Your task to perform on an android device: delete location history Image 0: 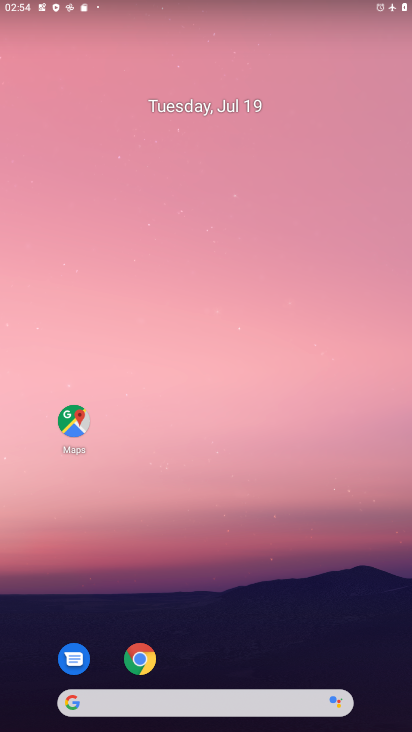
Step 0: press home button
Your task to perform on an android device: delete location history Image 1: 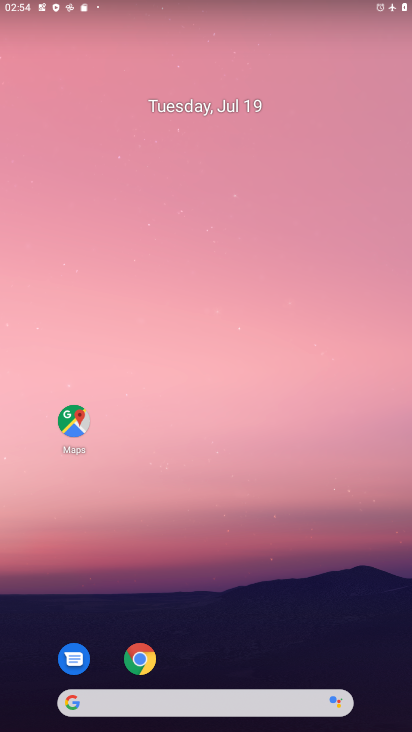
Step 1: drag from (223, 690) to (247, 282)
Your task to perform on an android device: delete location history Image 2: 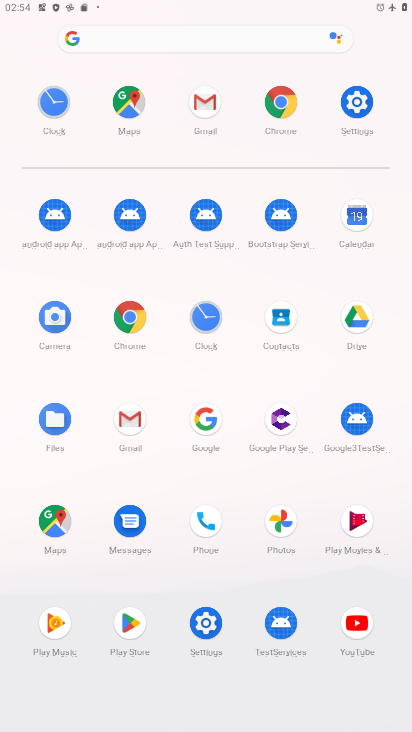
Step 2: click (146, 115)
Your task to perform on an android device: delete location history Image 3: 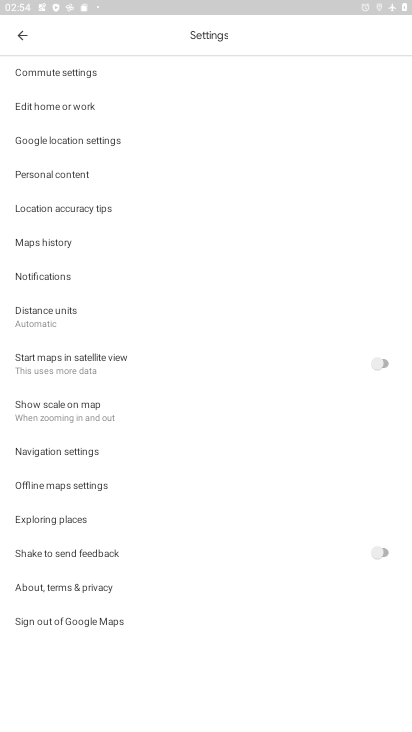
Step 3: click (17, 38)
Your task to perform on an android device: delete location history Image 4: 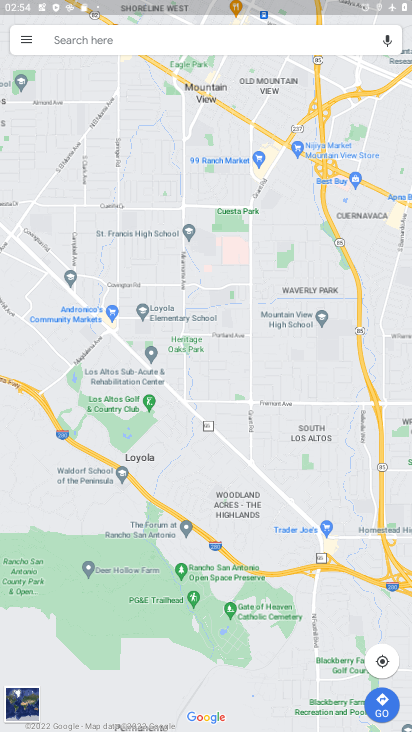
Step 4: click (17, 38)
Your task to perform on an android device: delete location history Image 5: 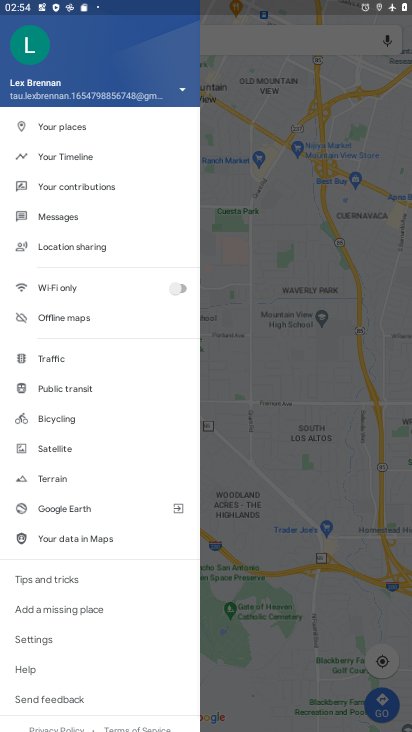
Step 5: click (44, 158)
Your task to perform on an android device: delete location history Image 6: 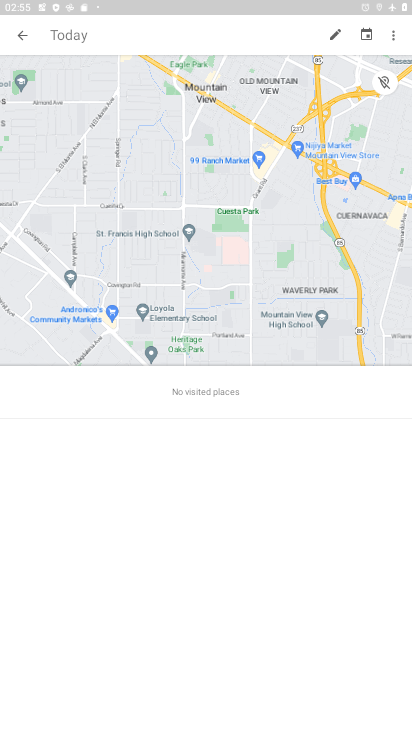
Step 6: click (405, 30)
Your task to perform on an android device: delete location history Image 7: 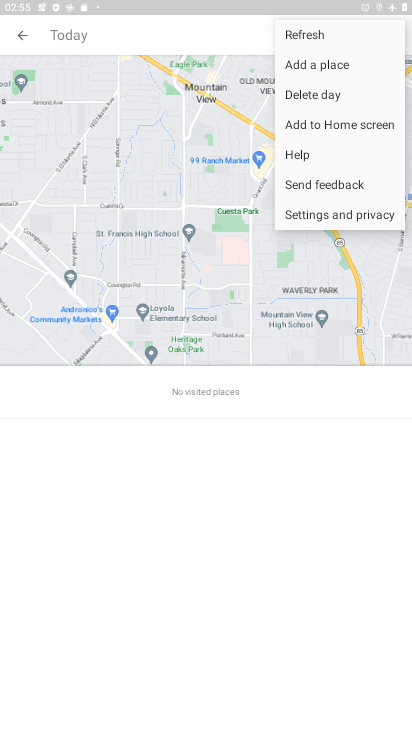
Step 7: click (302, 218)
Your task to perform on an android device: delete location history Image 8: 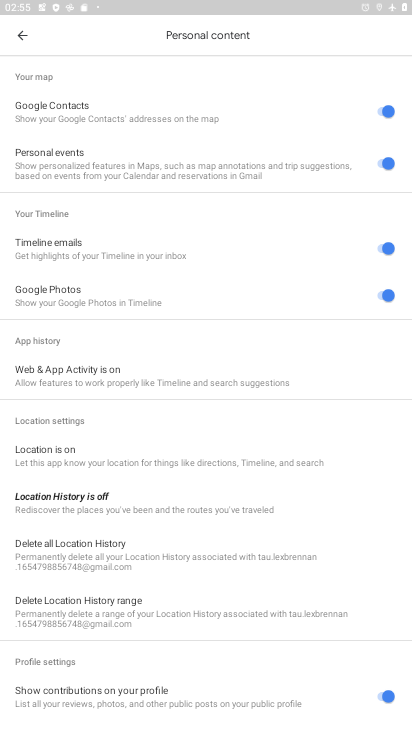
Step 8: click (108, 507)
Your task to perform on an android device: delete location history Image 9: 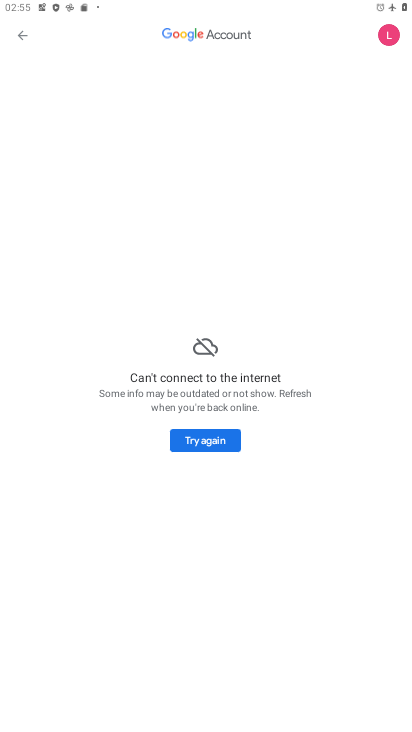
Step 9: drag from (232, 5) to (231, 275)
Your task to perform on an android device: delete location history Image 10: 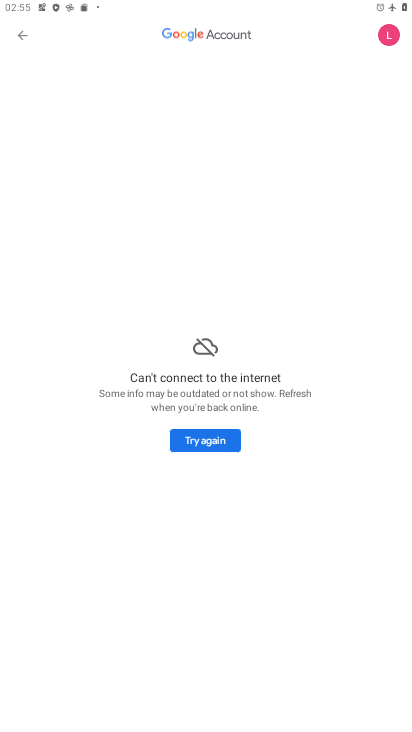
Step 10: drag from (282, 2) to (223, 571)
Your task to perform on an android device: delete location history Image 11: 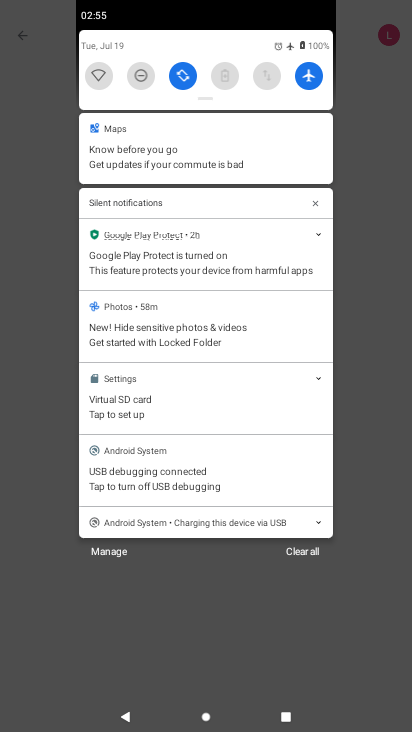
Step 11: click (308, 71)
Your task to perform on an android device: delete location history Image 12: 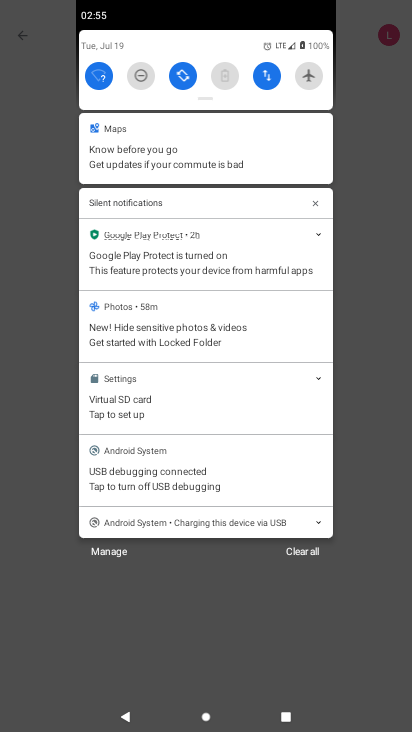
Step 12: drag from (218, 580) to (250, 22)
Your task to perform on an android device: delete location history Image 13: 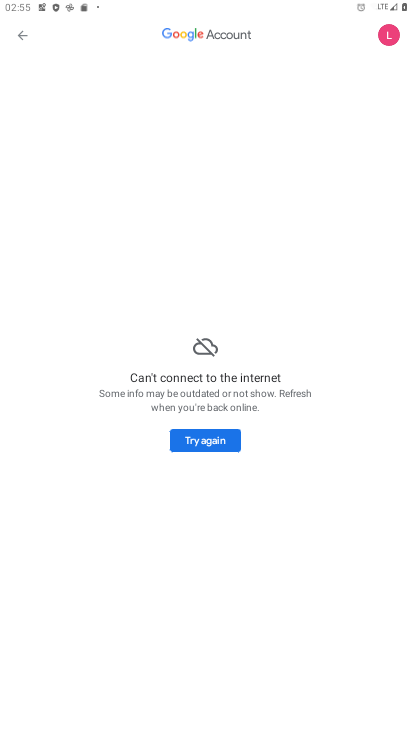
Step 13: click (194, 444)
Your task to perform on an android device: delete location history Image 14: 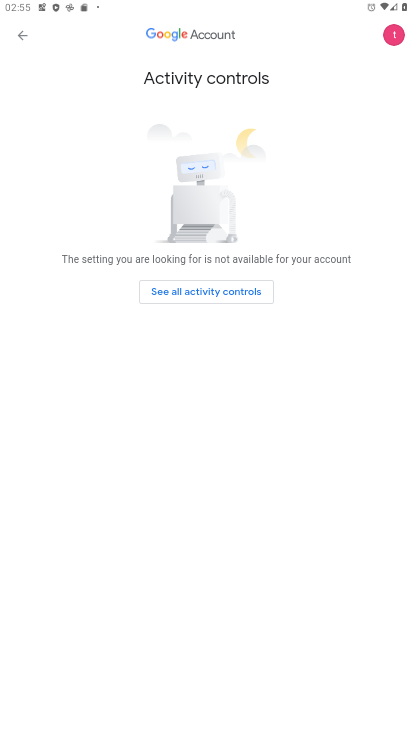
Step 14: click (247, 296)
Your task to perform on an android device: delete location history Image 15: 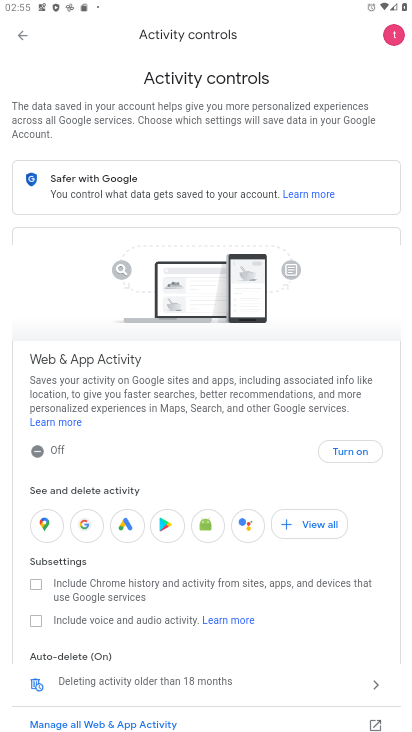
Step 15: click (7, 36)
Your task to perform on an android device: delete location history Image 16: 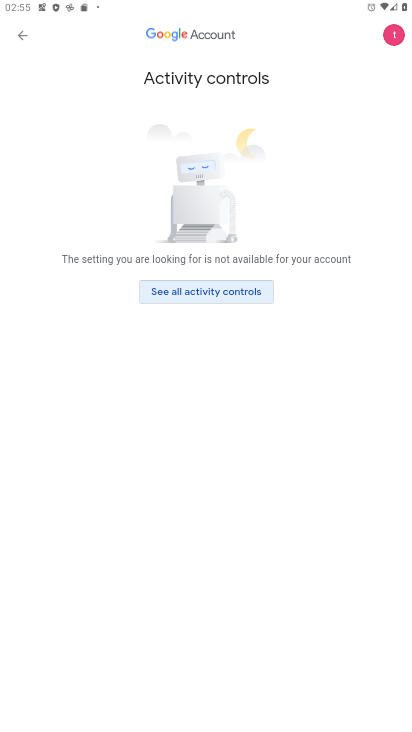
Step 16: click (7, 36)
Your task to perform on an android device: delete location history Image 17: 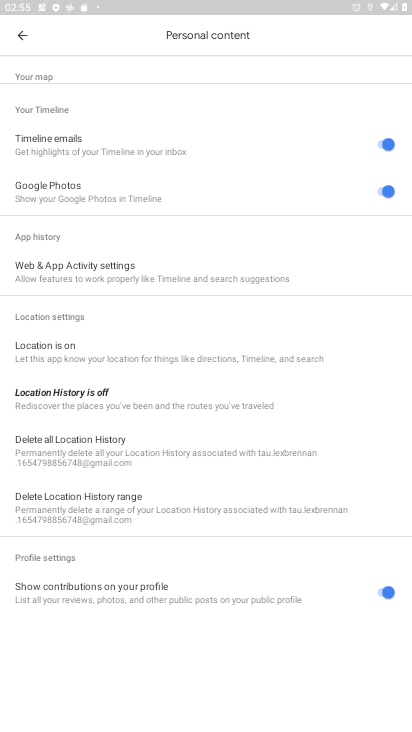
Step 17: click (69, 468)
Your task to perform on an android device: delete location history Image 18: 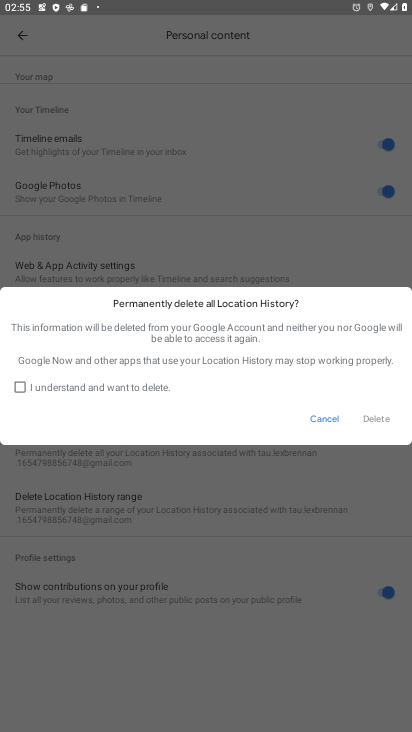
Step 18: click (65, 388)
Your task to perform on an android device: delete location history Image 19: 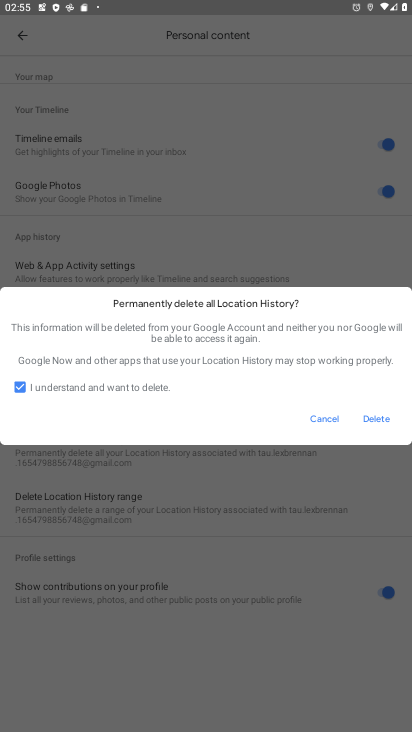
Step 19: click (378, 420)
Your task to perform on an android device: delete location history Image 20: 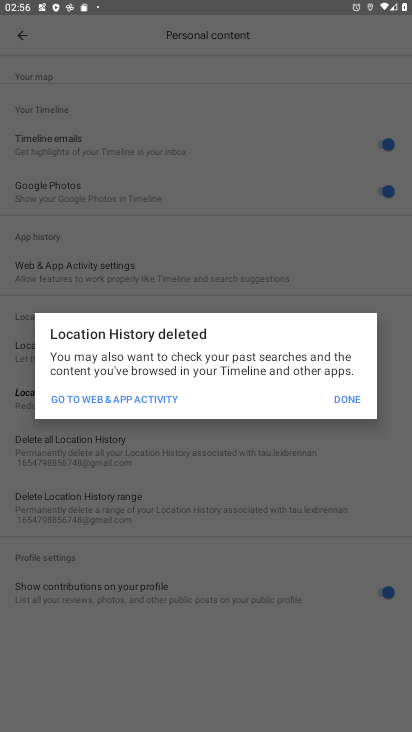
Step 20: click (338, 406)
Your task to perform on an android device: delete location history Image 21: 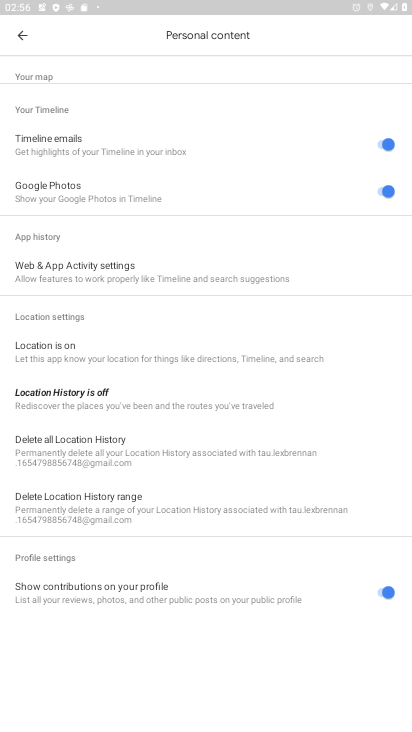
Step 21: task complete